Your task to perform on an android device: Show me popular games on the Play Store Image 0: 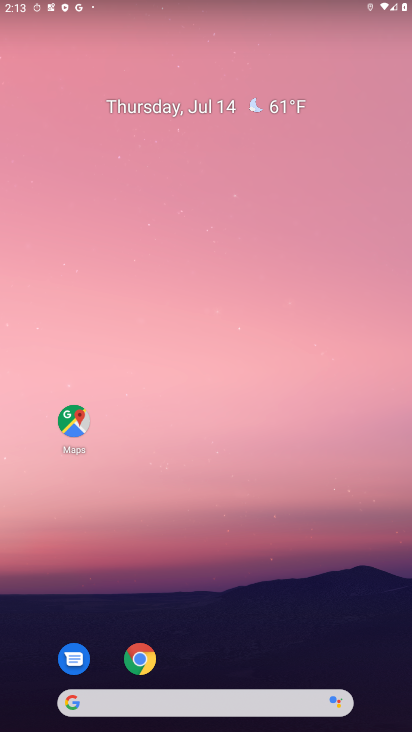
Step 0: drag from (223, 656) to (261, 111)
Your task to perform on an android device: Show me popular games on the Play Store Image 1: 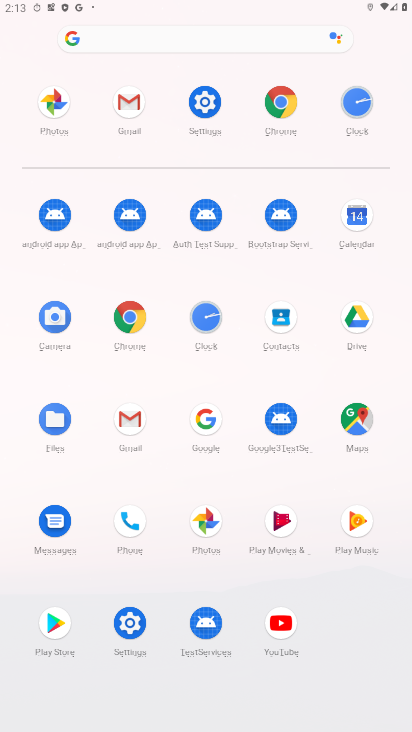
Step 1: click (3, 630)
Your task to perform on an android device: Show me popular games on the Play Store Image 2: 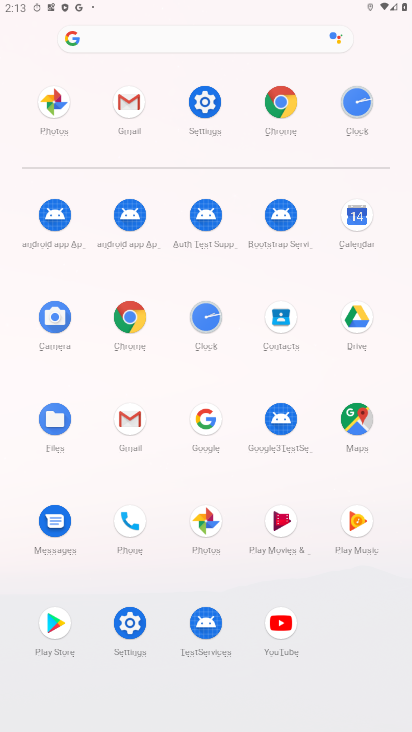
Step 2: click (38, 628)
Your task to perform on an android device: Show me popular games on the Play Store Image 3: 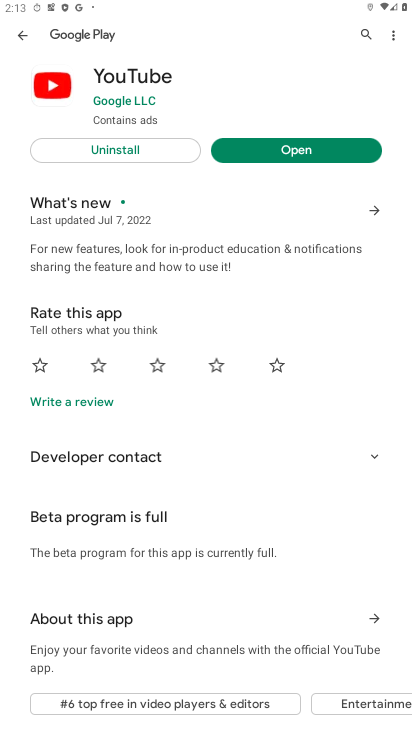
Step 3: click (41, 29)
Your task to perform on an android device: Show me popular games on the Play Store Image 4: 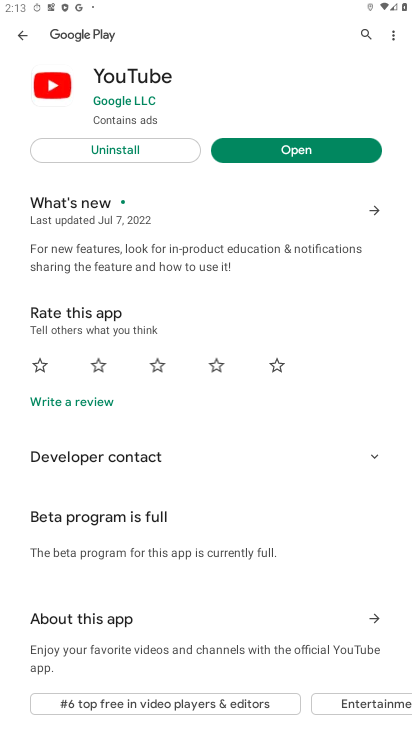
Step 4: click (22, 41)
Your task to perform on an android device: Show me popular games on the Play Store Image 5: 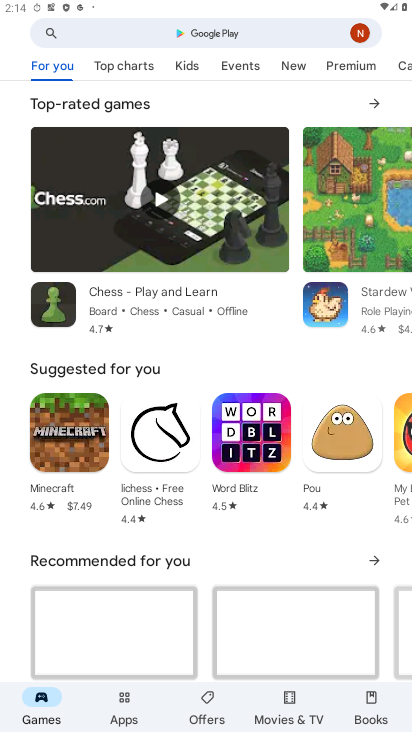
Step 5: task complete